Your task to perform on an android device: open device folders in google photos Image 0: 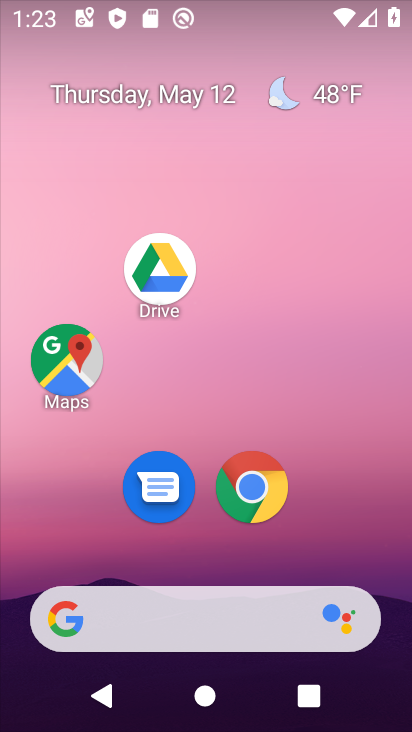
Step 0: drag from (199, 573) to (172, 25)
Your task to perform on an android device: open device folders in google photos Image 1: 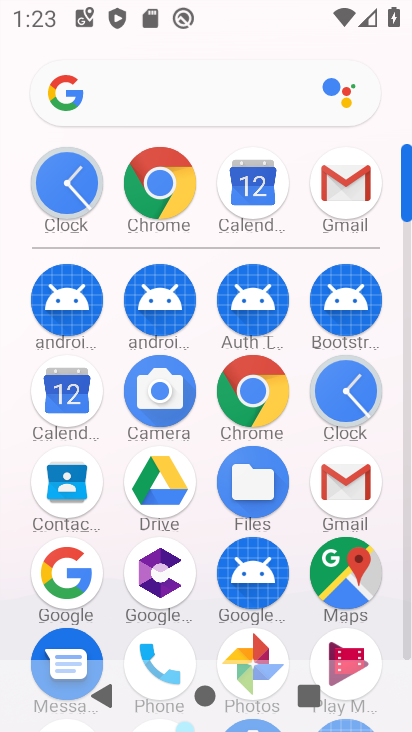
Step 1: click (259, 646)
Your task to perform on an android device: open device folders in google photos Image 2: 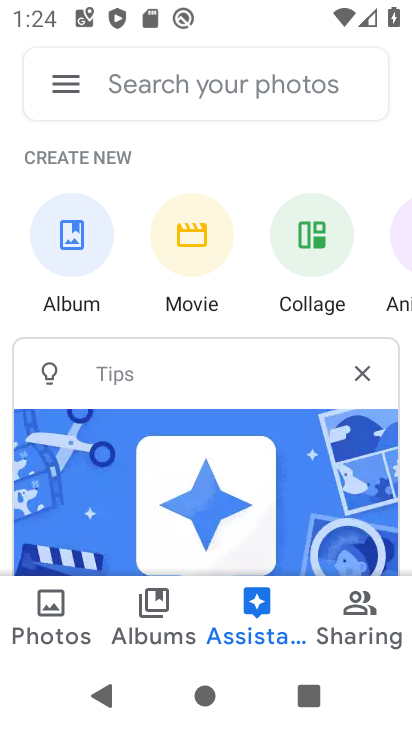
Step 2: click (75, 81)
Your task to perform on an android device: open device folders in google photos Image 3: 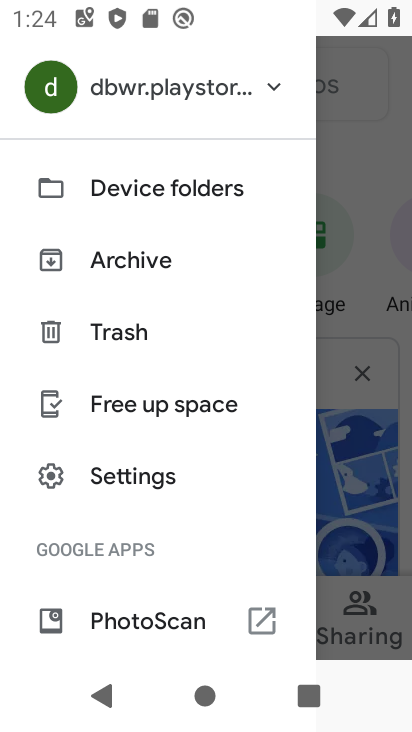
Step 3: click (81, 172)
Your task to perform on an android device: open device folders in google photos Image 4: 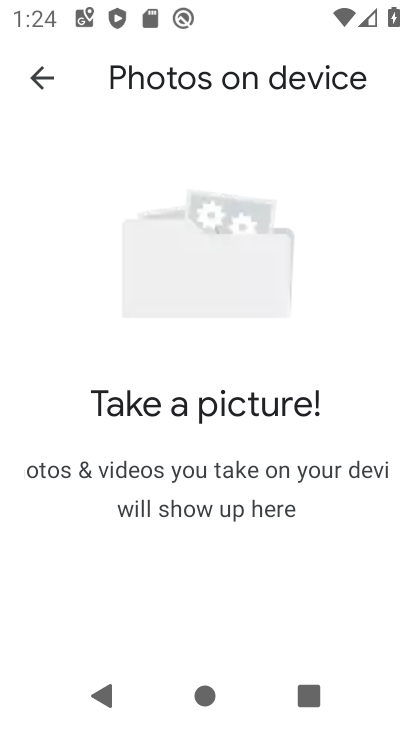
Step 4: task complete